Your task to perform on an android device: change notifications settings Image 0: 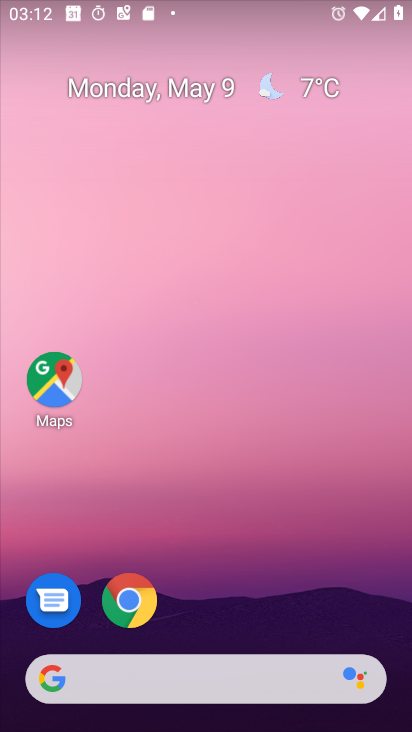
Step 0: drag from (174, 663) to (116, 257)
Your task to perform on an android device: change notifications settings Image 1: 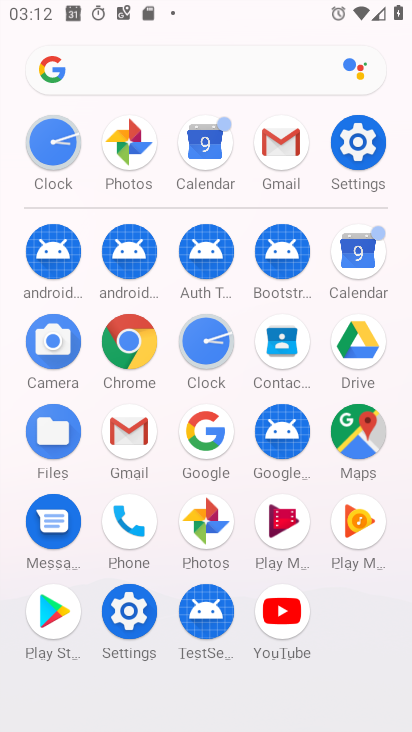
Step 1: click (360, 158)
Your task to perform on an android device: change notifications settings Image 2: 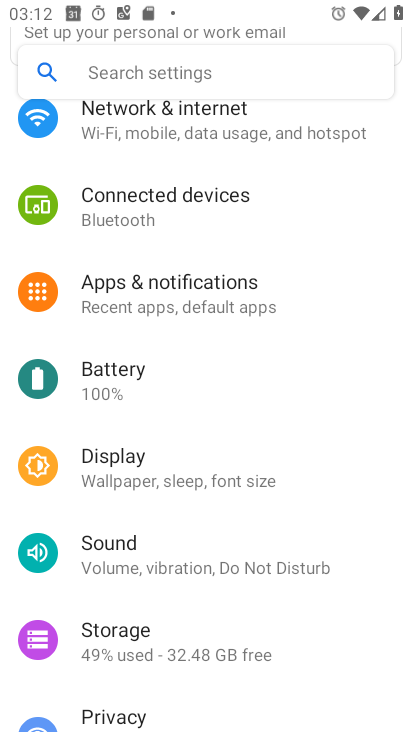
Step 2: click (188, 570)
Your task to perform on an android device: change notifications settings Image 3: 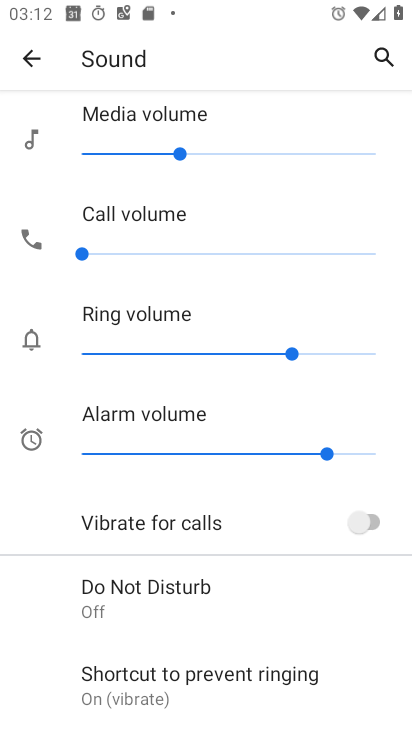
Step 3: click (361, 524)
Your task to perform on an android device: change notifications settings Image 4: 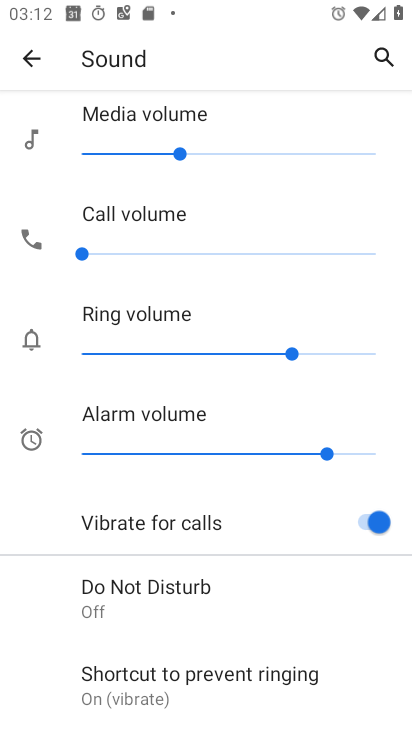
Step 4: drag from (281, 611) to (281, 350)
Your task to perform on an android device: change notifications settings Image 5: 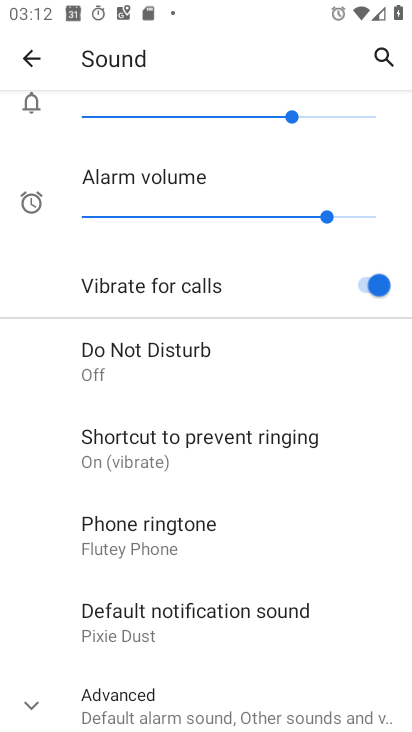
Step 5: click (210, 370)
Your task to perform on an android device: change notifications settings Image 6: 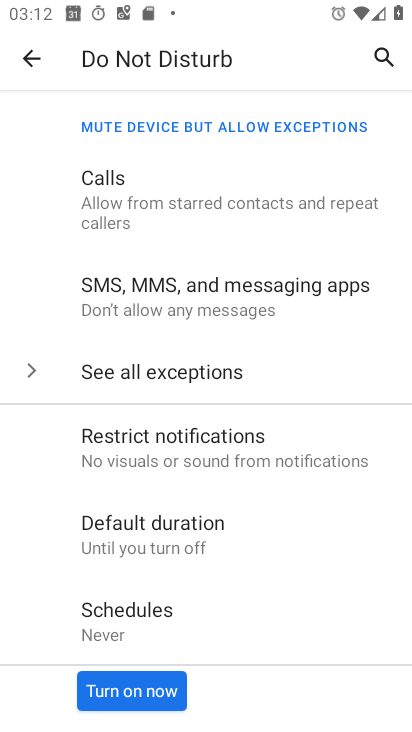
Step 6: click (140, 679)
Your task to perform on an android device: change notifications settings Image 7: 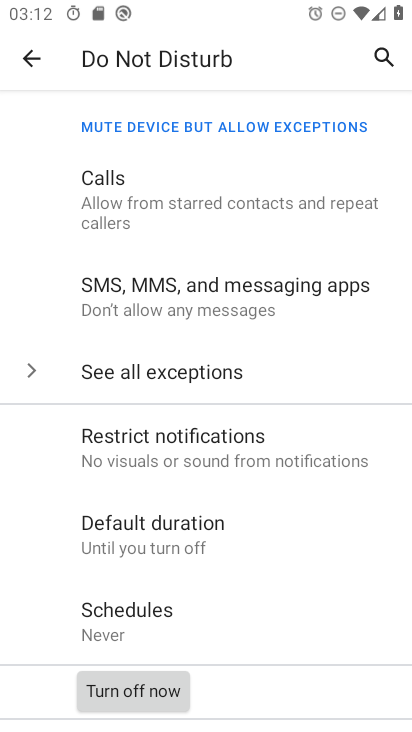
Step 7: task complete